Your task to perform on an android device: toggle improve location accuracy Image 0: 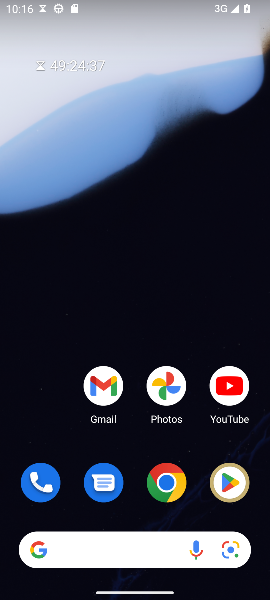
Step 0: drag from (128, 480) to (184, 112)
Your task to perform on an android device: toggle improve location accuracy Image 1: 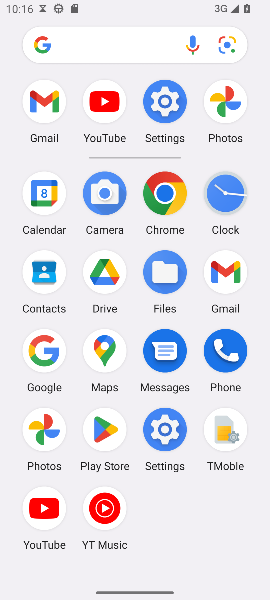
Step 1: click (167, 94)
Your task to perform on an android device: toggle improve location accuracy Image 2: 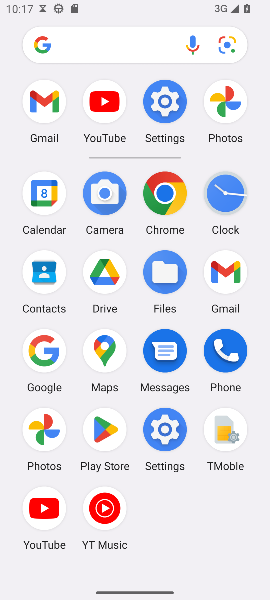
Step 2: click (167, 92)
Your task to perform on an android device: toggle improve location accuracy Image 3: 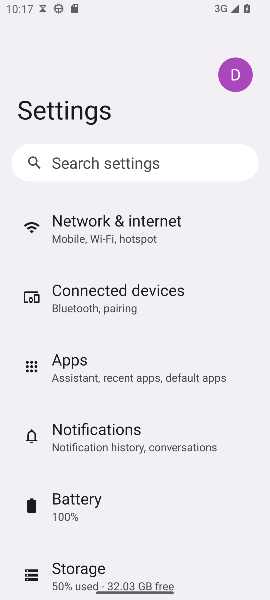
Step 3: drag from (30, 482) to (46, 209)
Your task to perform on an android device: toggle improve location accuracy Image 4: 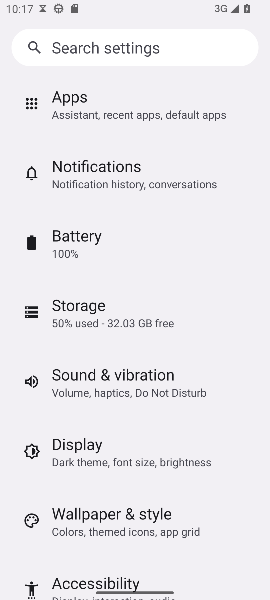
Step 4: drag from (90, 460) to (114, 171)
Your task to perform on an android device: toggle improve location accuracy Image 5: 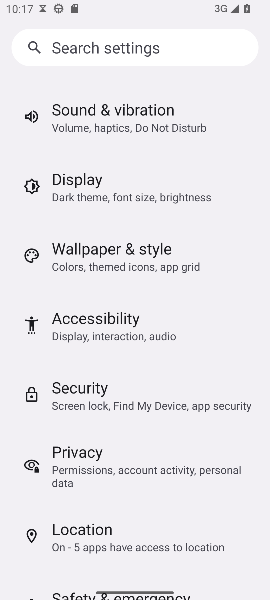
Step 5: click (92, 536)
Your task to perform on an android device: toggle improve location accuracy Image 6: 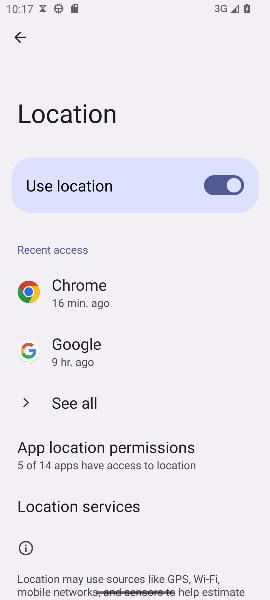
Step 6: task complete